Your task to perform on an android device: turn on the 12-hour format for clock Image 0: 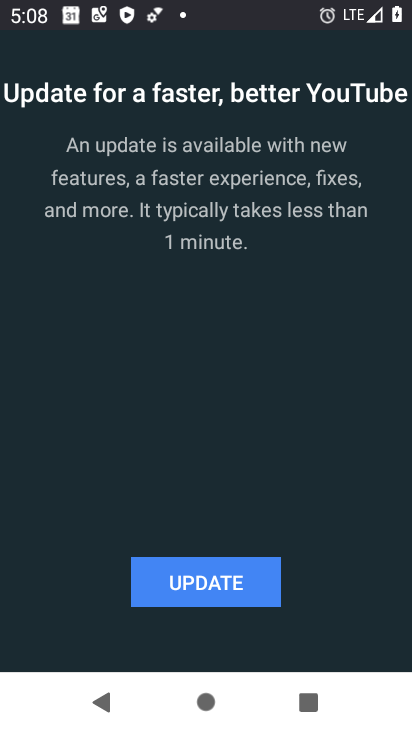
Step 0: press home button
Your task to perform on an android device: turn on the 12-hour format for clock Image 1: 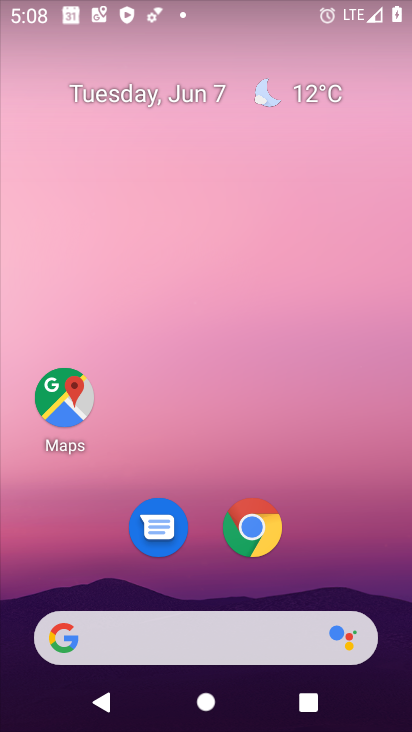
Step 1: drag from (344, 543) to (241, 63)
Your task to perform on an android device: turn on the 12-hour format for clock Image 2: 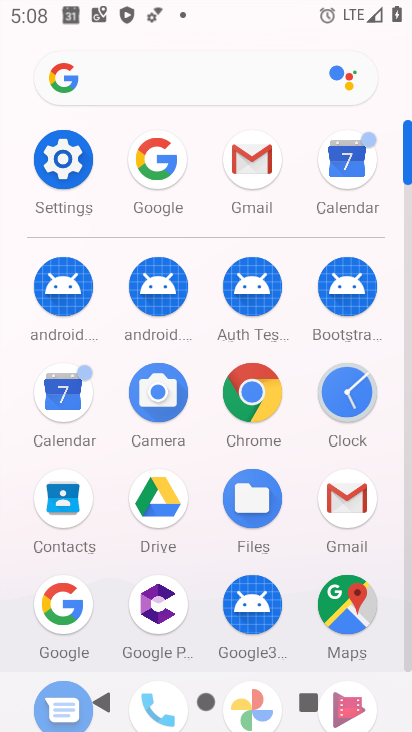
Step 2: click (349, 389)
Your task to perform on an android device: turn on the 12-hour format for clock Image 3: 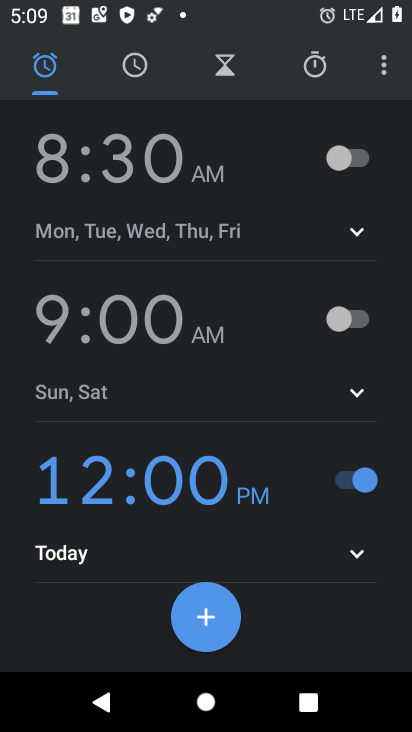
Step 3: click (382, 64)
Your task to perform on an android device: turn on the 12-hour format for clock Image 4: 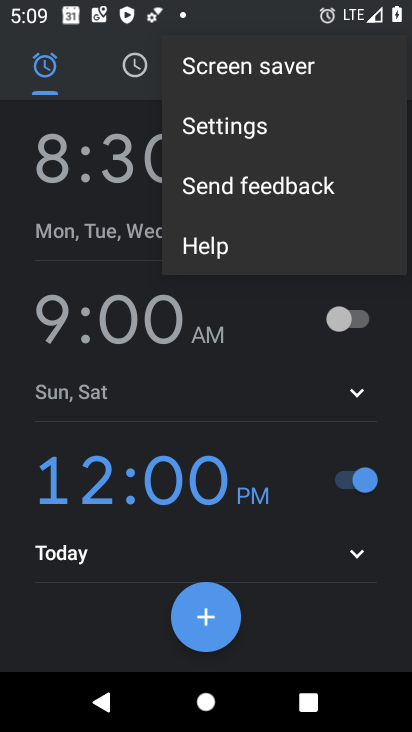
Step 4: click (279, 122)
Your task to perform on an android device: turn on the 12-hour format for clock Image 5: 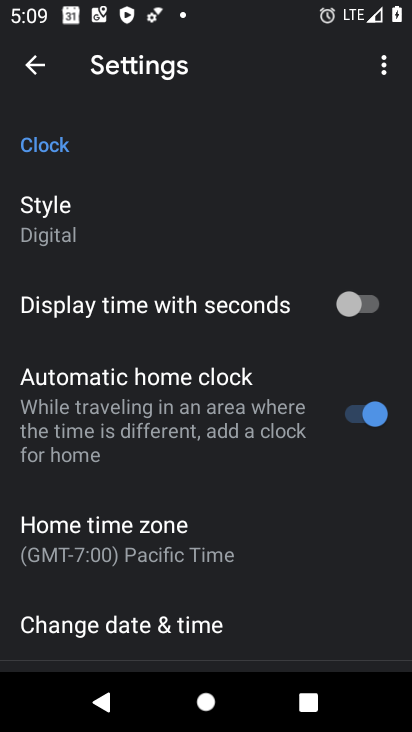
Step 5: drag from (131, 474) to (136, 253)
Your task to perform on an android device: turn on the 12-hour format for clock Image 6: 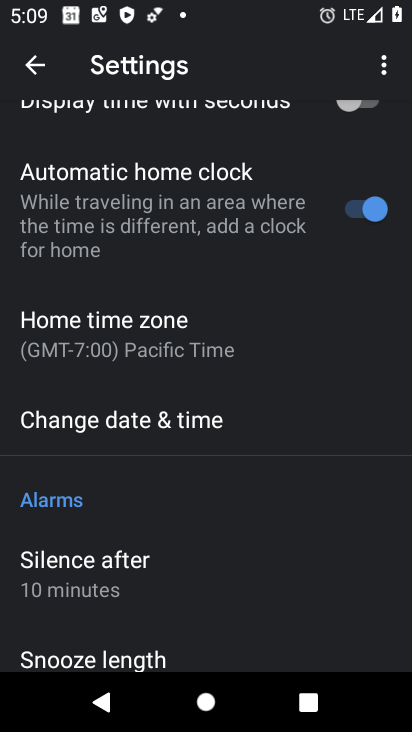
Step 6: click (134, 422)
Your task to perform on an android device: turn on the 12-hour format for clock Image 7: 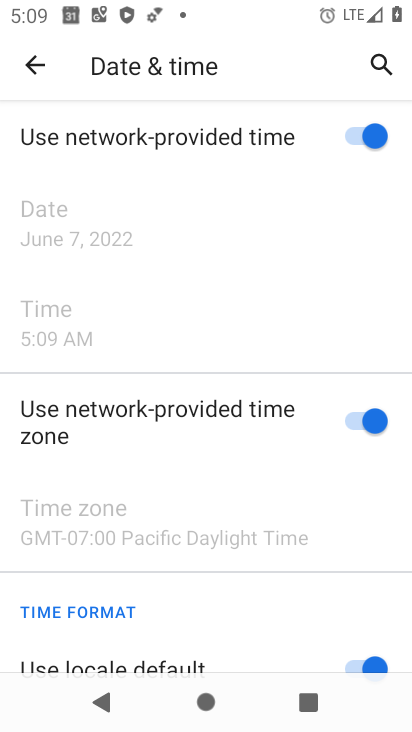
Step 7: task complete